Your task to perform on an android device: Open calendar and show me the fourth week of next month Image 0: 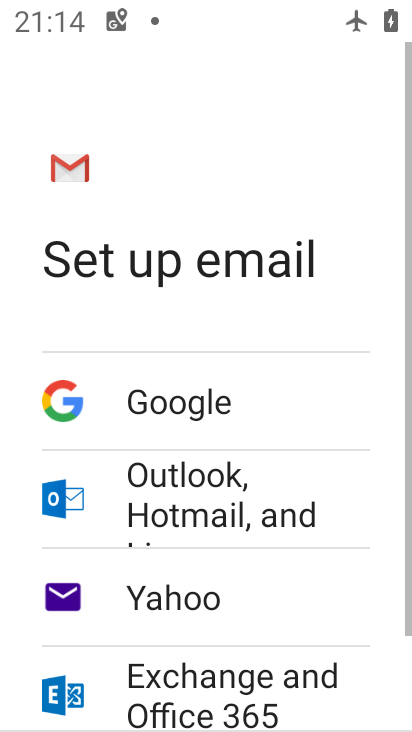
Step 0: press back button
Your task to perform on an android device: Open calendar and show me the fourth week of next month Image 1: 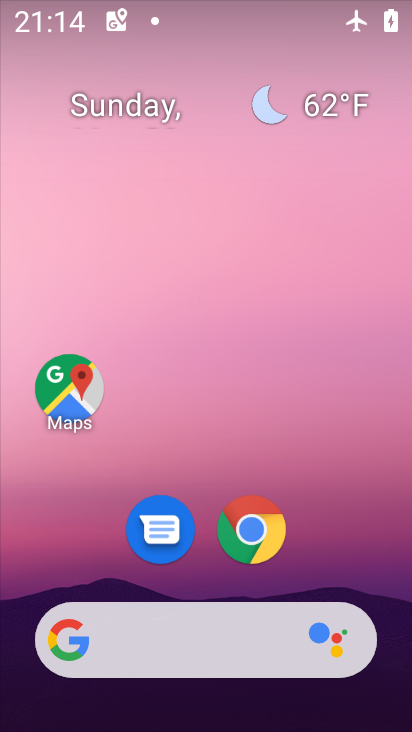
Step 1: drag from (244, 711) to (208, 123)
Your task to perform on an android device: Open calendar and show me the fourth week of next month Image 2: 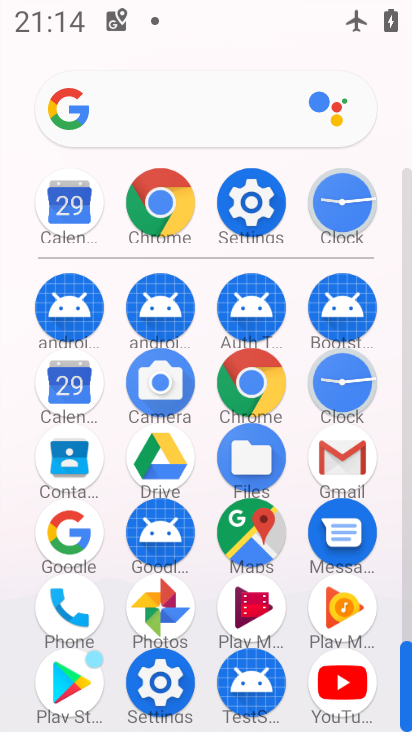
Step 2: click (72, 388)
Your task to perform on an android device: Open calendar and show me the fourth week of next month Image 3: 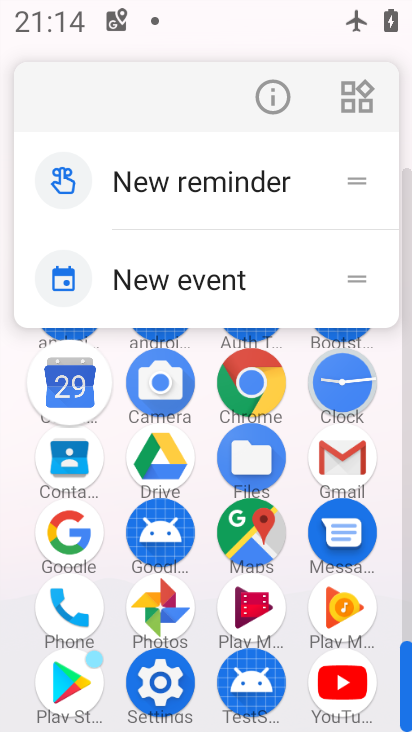
Step 3: click (72, 388)
Your task to perform on an android device: Open calendar and show me the fourth week of next month Image 4: 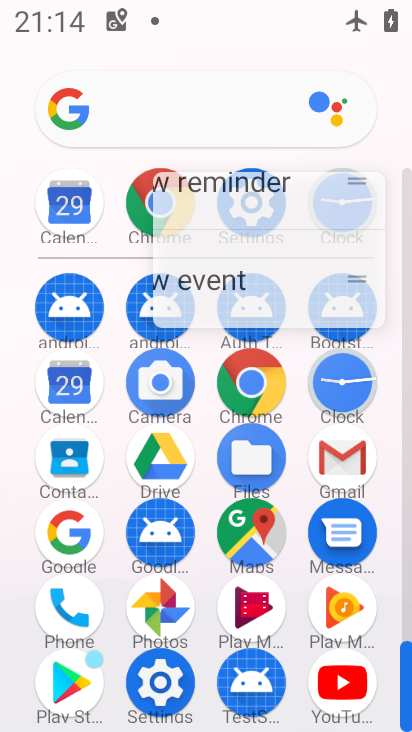
Step 4: click (72, 388)
Your task to perform on an android device: Open calendar and show me the fourth week of next month Image 5: 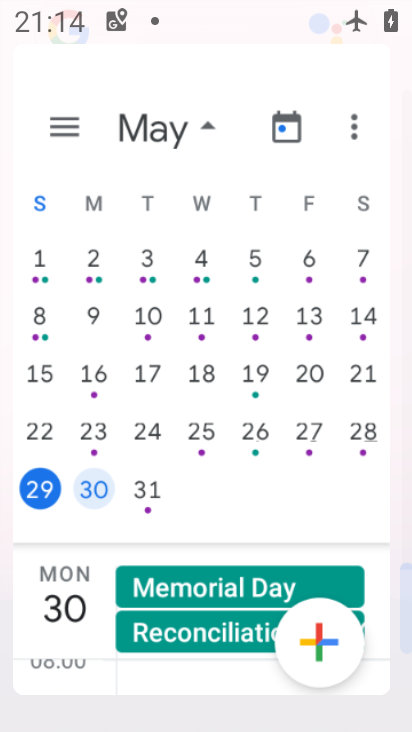
Step 5: click (76, 384)
Your task to perform on an android device: Open calendar and show me the fourth week of next month Image 6: 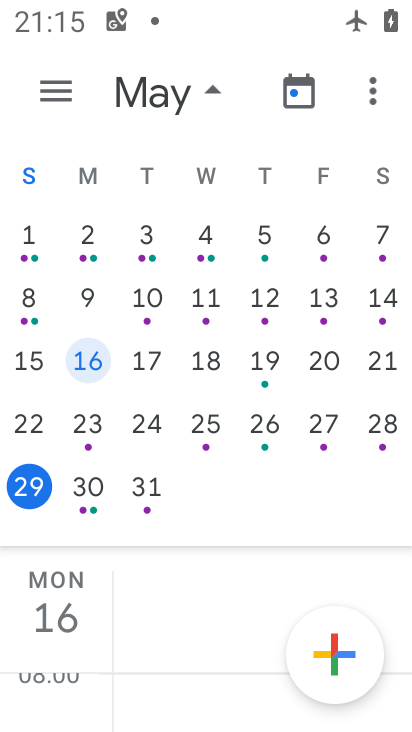
Step 6: drag from (262, 354) to (7, 385)
Your task to perform on an android device: Open calendar and show me the fourth week of next month Image 7: 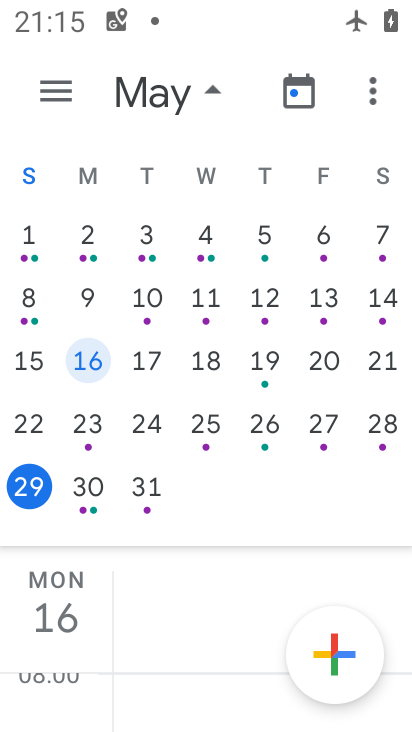
Step 7: click (18, 379)
Your task to perform on an android device: Open calendar and show me the fourth week of next month Image 8: 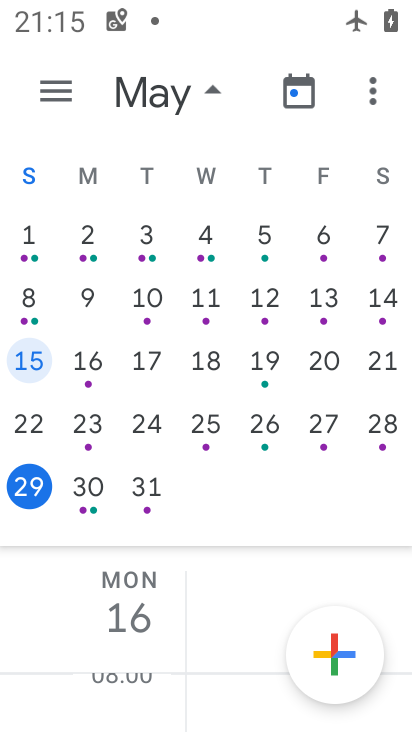
Step 8: drag from (29, 355) to (0, 243)
Your task to perform on an android device: Open calendar and show me the fourth week of next month Image 9: 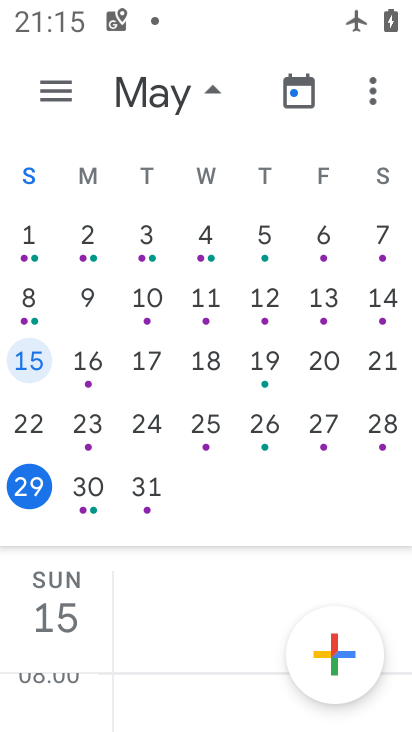
Step 9: drag from (113, 334) to (34, 346)
Your task to perform on an android device: Open calendar and show me the fourth week of next month Image 10: 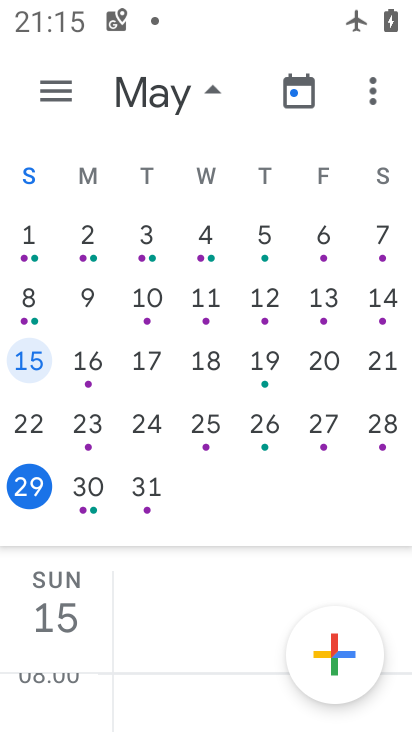
Step 10: drag from (65, 343) to (35, 325)
Your task to perform on an android device: Open calendar and show me the fourth week of next month Image 11: 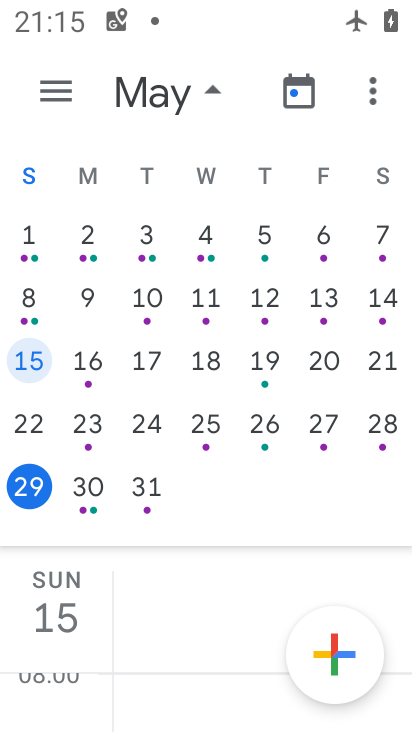
Step 11: drag from (140, 307) to (7, 412)
Your task to perform on an android device: Open calendar and show me the fourth week of next month Image 12: 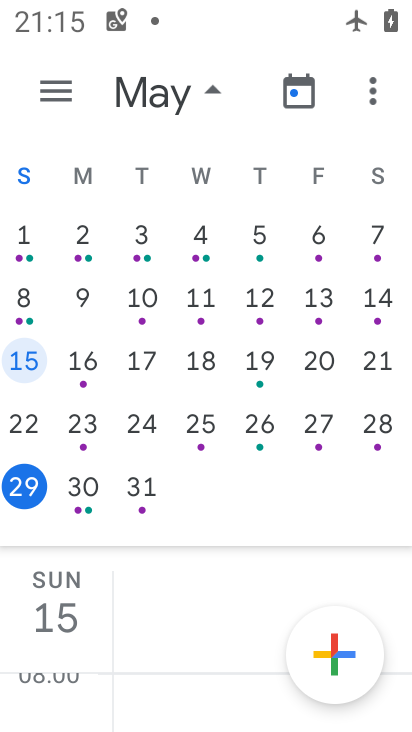
Step 12: drag from (271, 245) to (34, 348)
Your task to perform on an android device: Open calendar and show me the fourth week of next month Image 13: 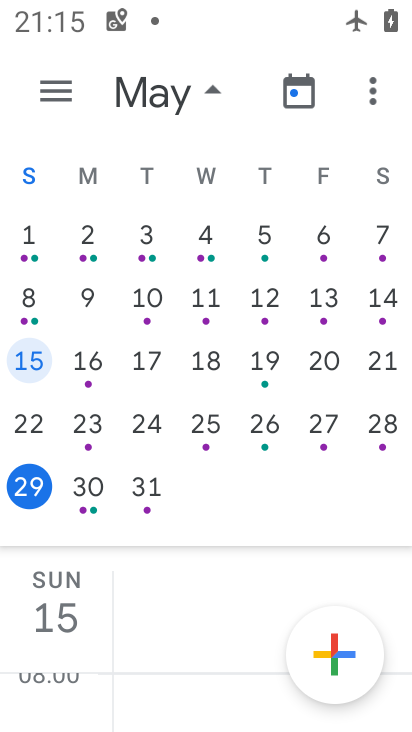
Step 13: drag from (257, 297) to (56, 339)
Your task to perform on an android device: Open calendar and show me the fourth week of next month Image 14: 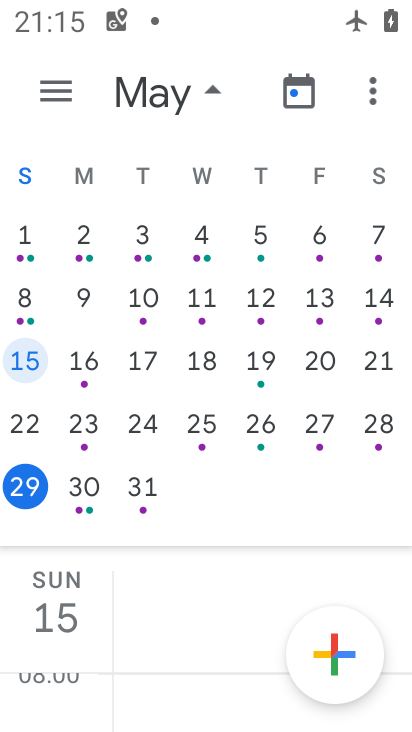
Step 14: drag from (360, 332) to (14, 288)
Your task to perform on an android device: Open calendar and show me the fourth week of next month Image 15: 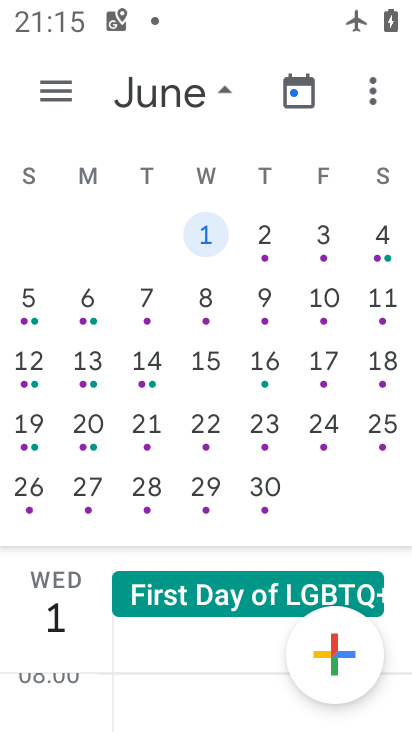
Step 15: click (195, 355)
Your task to perform on an android device: Open calendar and show me the fourth week of next month Image 16: 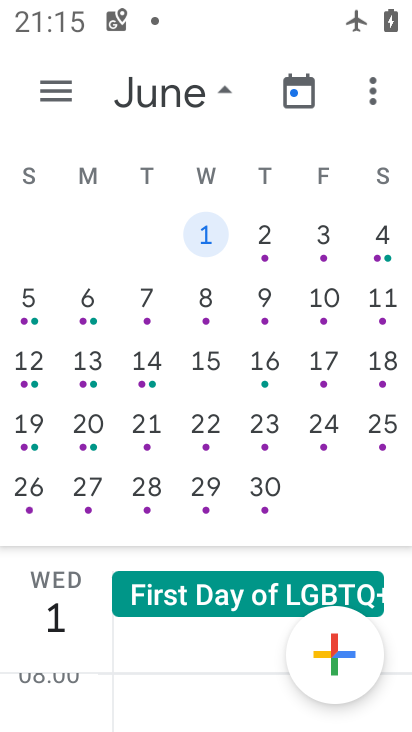
Step 16: click (211, 361)
Your task to perform on an android device: Open calendar and show me the fourth week of next month Image 17: 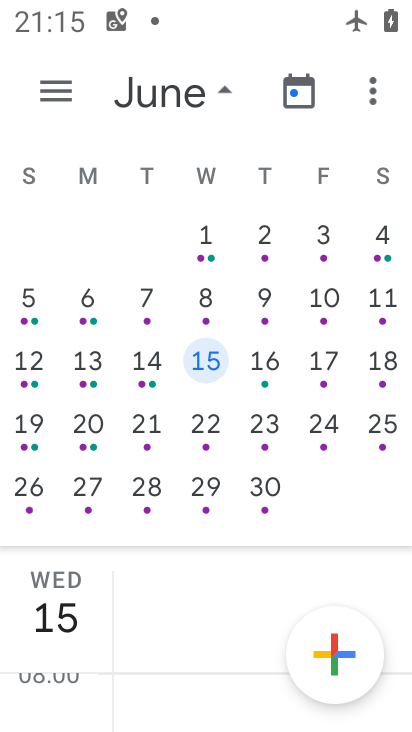
Step 17: task complete